Your task to perform on an android device: turn notification dots on Image 0: 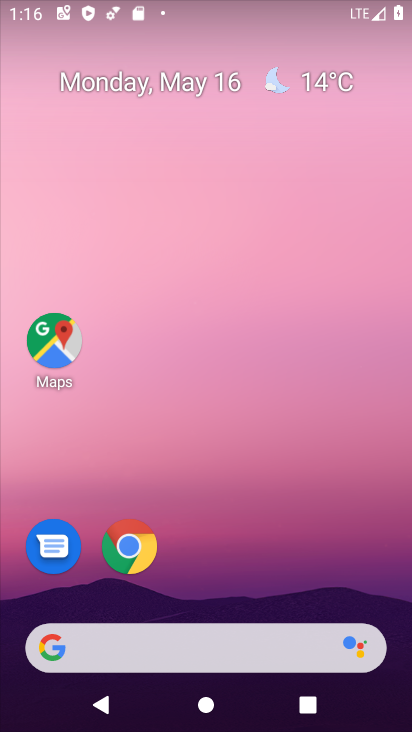
Step 0: drag from (234, 669) to (398, 249)
Your task to perform on an android device: turn notification dots on Image 1: 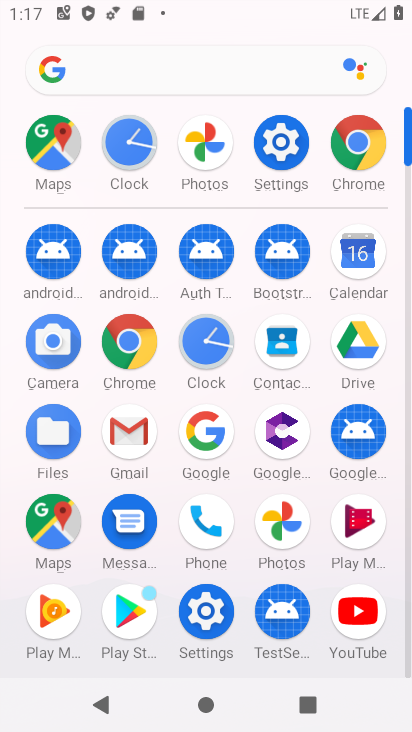
Step 1: click (294, 160)
Your task to perform on an android device: turn notification dots on Image 2: 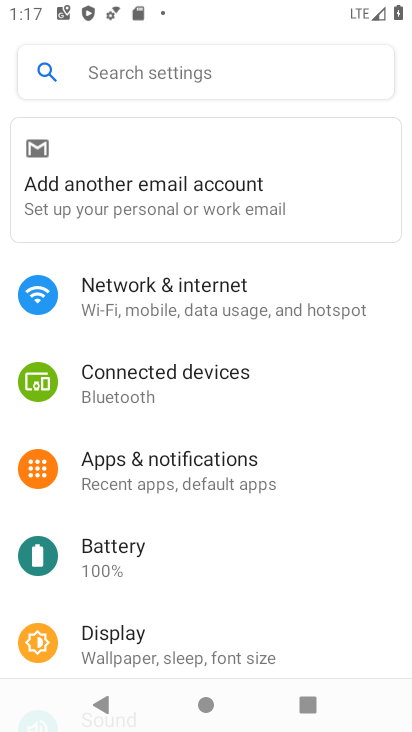
Step 2: click (206, 75)
Your task to perform on an android device: turn notification dots on Image 3: 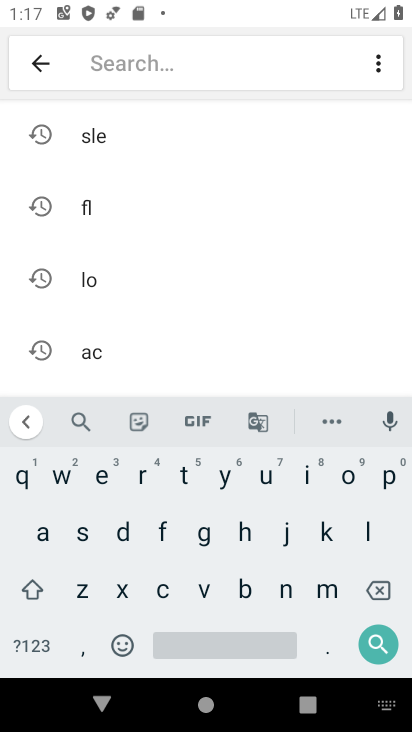
Step 3: click (120, 527)
Your task to perform on an android device: turn notification dots on Image 4: 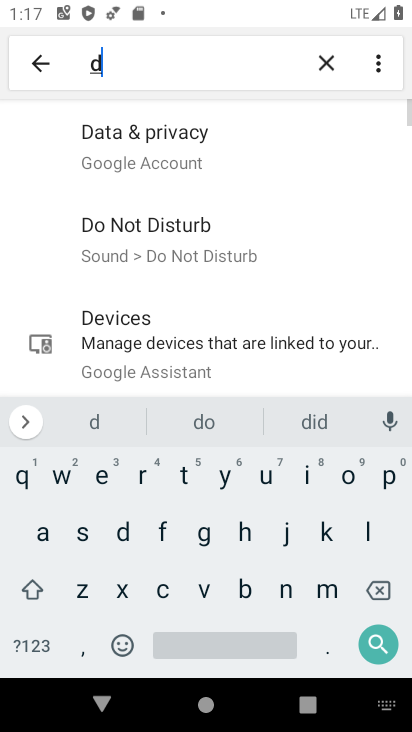
Step 4: click (348, 482)
Your task to perform on an android device: turn notification dots on Image 5: 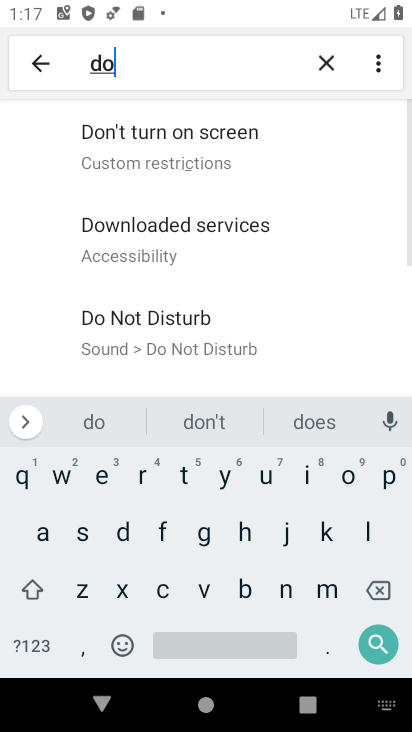
Step 5: click (182, 484)
Your task to perform on an android device: turn notification dots on Image 6: 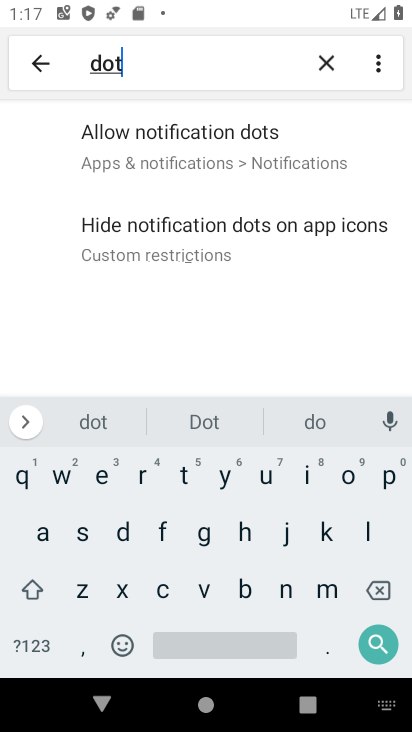
Step 6: click (216, 142)
Your task to perform on an android device: turn notification dots on Image 7: 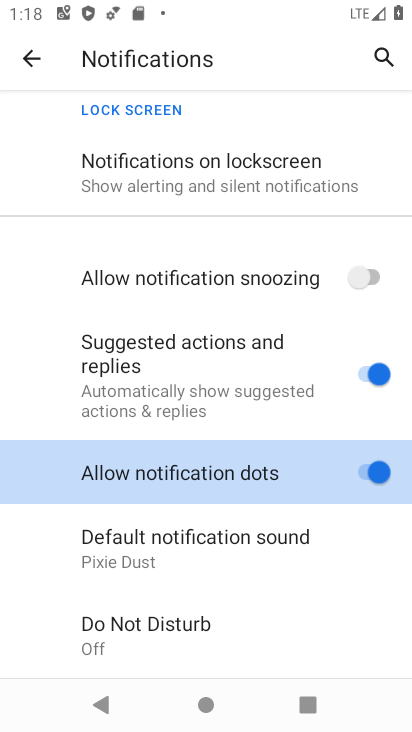
Step 7: click (166, 472)
Your task to perform on an android device: turn notification dots on Image 8: 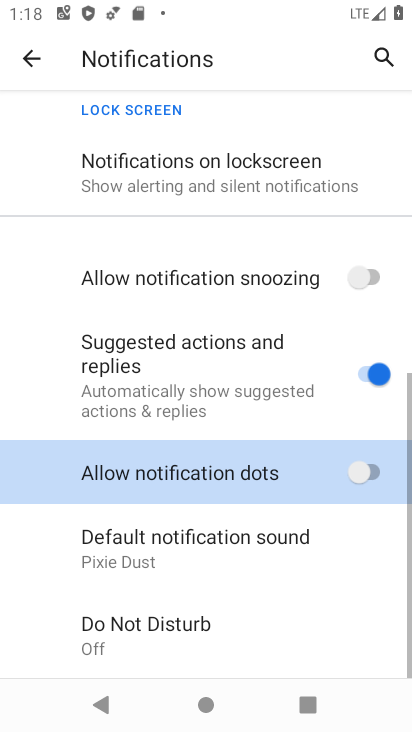
Step 8: click (160, 475)
Your task to perform on an android device: turn notification dots on Image 9: 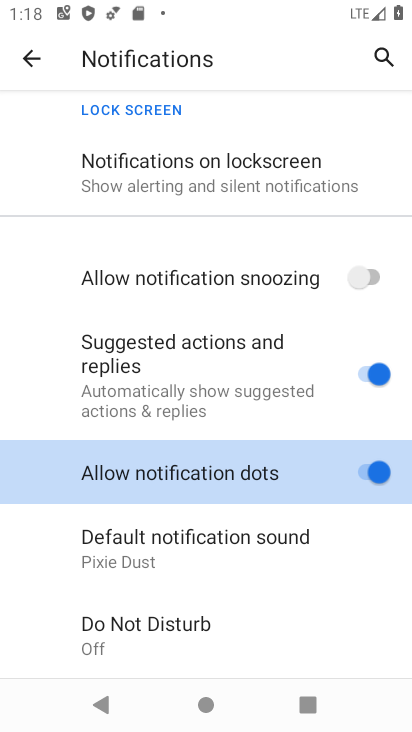
Step 9: task complete